Your task to perform on an android device: Go to battery settings Image 0: 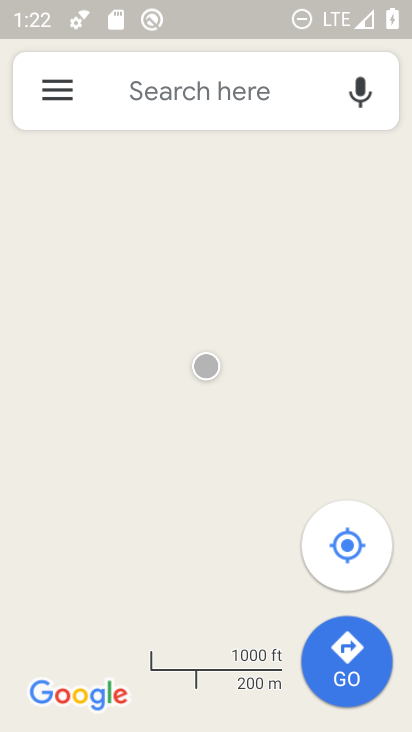
Step 0: press home button
Your task to perform on an android device: Go to battery settings Image 1: 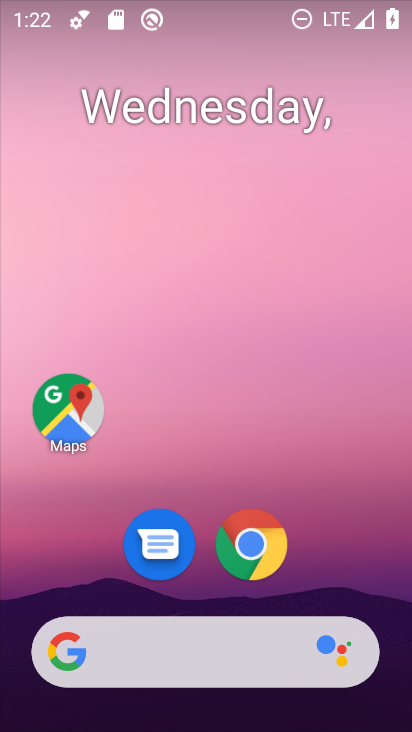
Step 1: drag from (318, 591) to (351, 74)
Your task to perform on an android device: Go to battery settings Image 2: 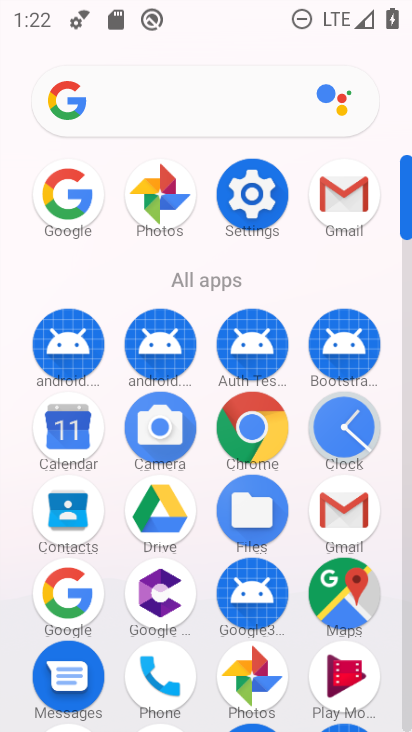
Step 2: click (246, 199)
Your task to perform on an android device: Go to battery settings Image 3: 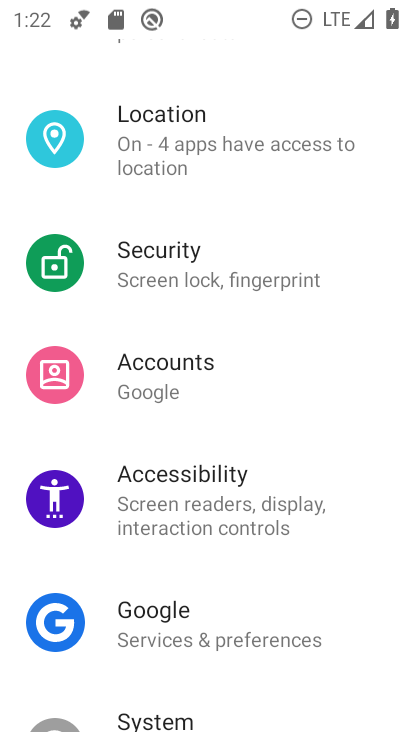
Step 3: drag from (211, 567) to (233, 283)
Your task to perform on an android device: Go to battery settings Image 4: 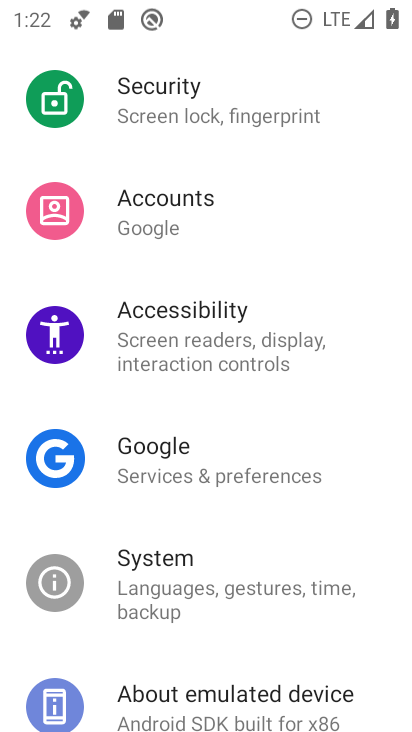
Step 4: drag from (161, 387) to (201, 630)
Your task to perform on an android device: Go to battery settings Image 5: 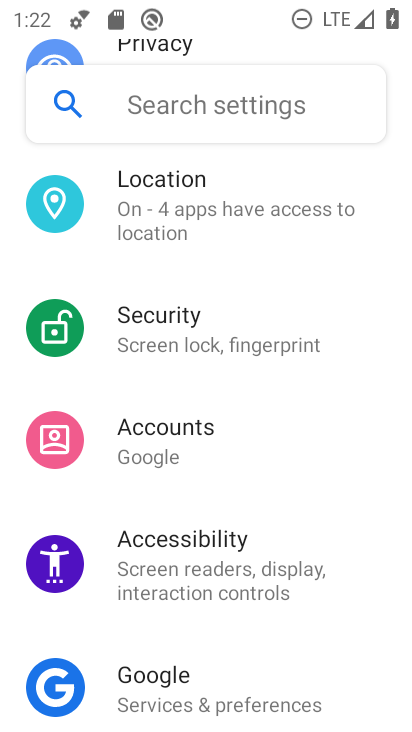
Step 5: drag from (234, 356) to (249, 647)
Your task to perform on an android device: Go to battery settings Image 6: 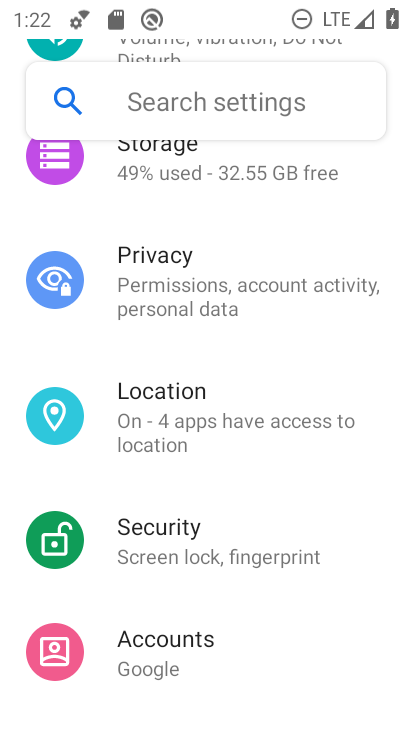
Step 6: drag from (225, 269) to (245, 532)
Your task to perform on an android device: Go to battery settings Image 7: 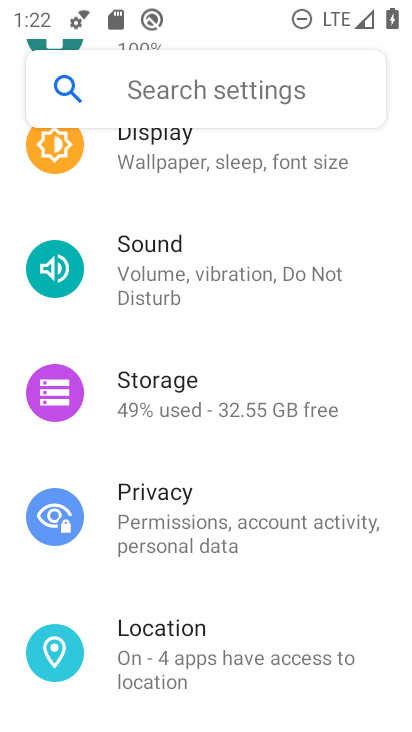
Step 7: drag from (168, 239) to (202, 571)
Your task to perform on an android device: Go to battery settings Image 8: 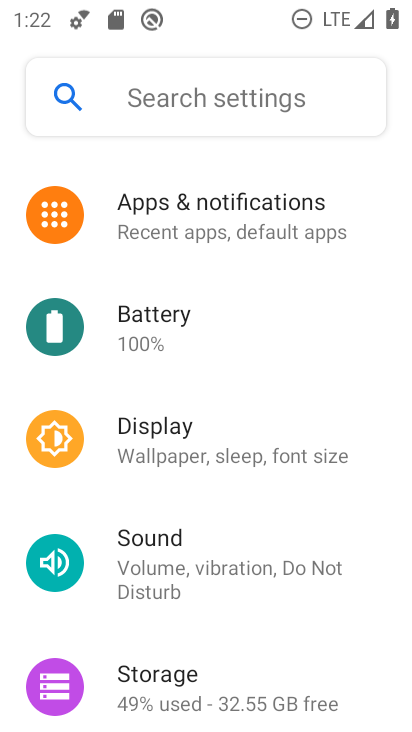
Step 8: click (191, 306)
Your task to perform on an android device: Go to battery settings Image 9: 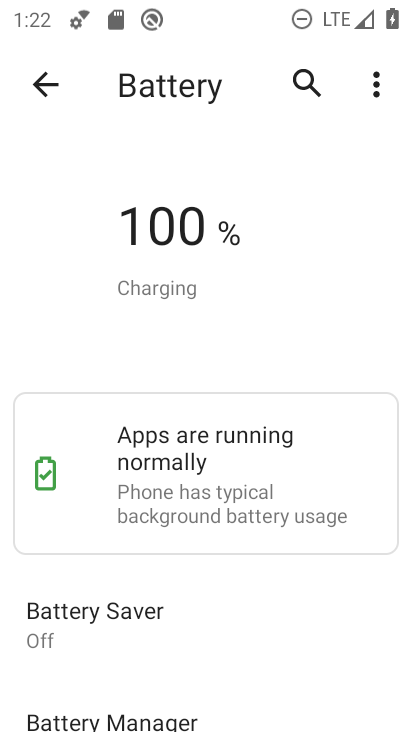
Step 9: task complete